Your task to perform on an android device: Open accessibility settings Image 0: 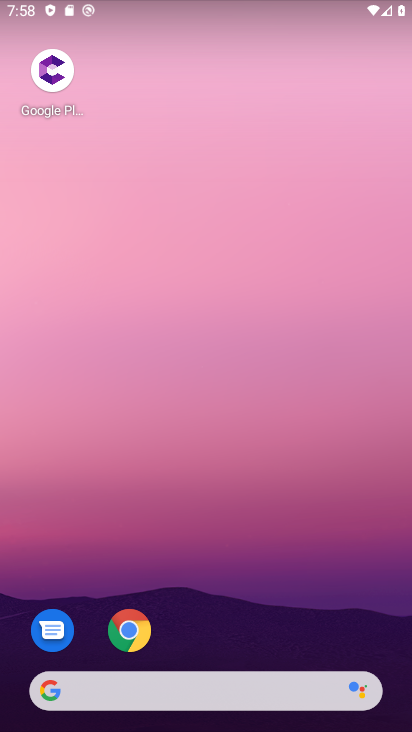
Step 0: drag from (253, 603) to (312, 90)
Your task to perform on an android device: Open accessibility settings Image 1: 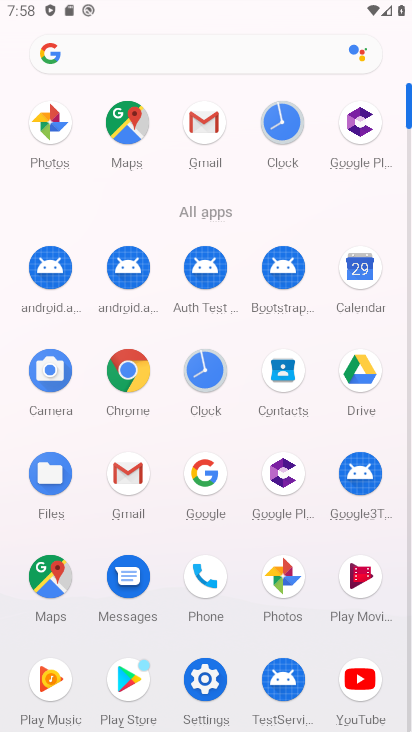
Step 1: click (210, 674)
Your task to perform on an android device: Open accessibility settings Image 2: 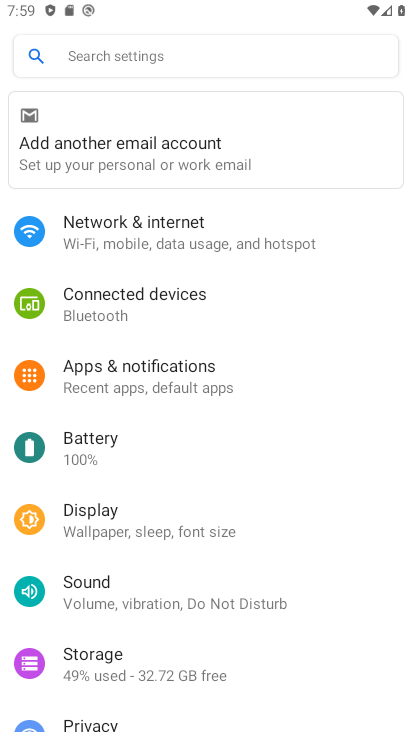
Step 2: drag from (210, 674) to (206, 178)
Your task to perform on an android device: Open accessibility settings Image 3: 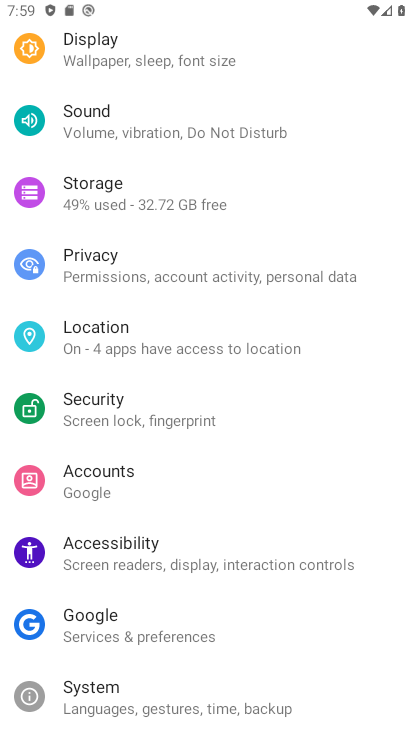
Step 3: click (253, 556)
Your task to perform on an android device: Open accessibility settings Image 4: 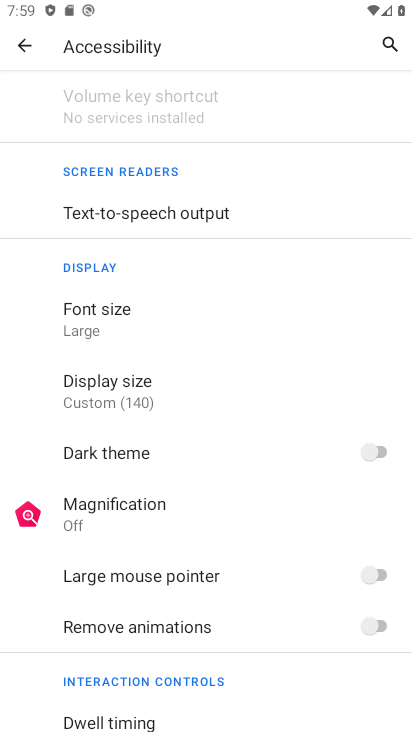
Step 4: task complete